Your task to perform on an android device: Go to settings Image 0: 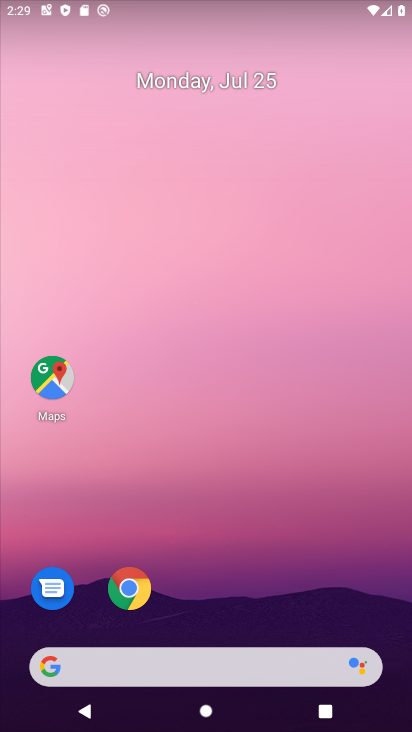
Step 0: drag from (227, 608) to (317, 180)
Your task to perform on an android device: Go to settings Image 1: 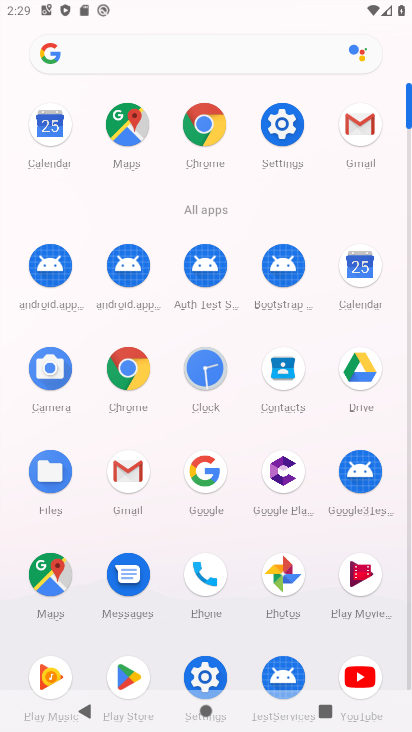
Step 1: click (286, 136)
Your task to perform on an android device: Go to settings Image 2: 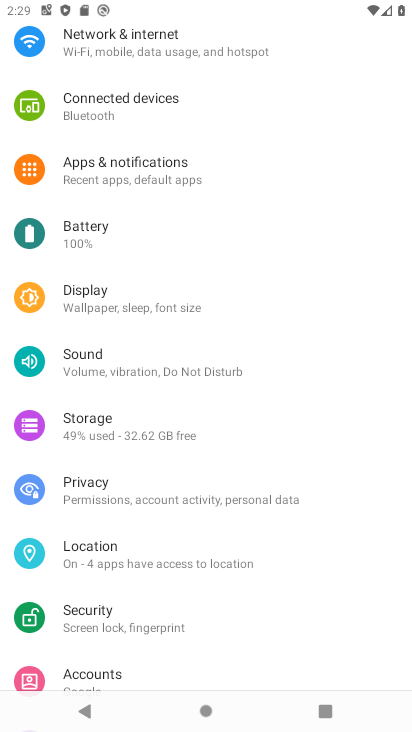
Step 2: task complete